Your task to perform on an android device: check the backup settings in the google photos Image 0: 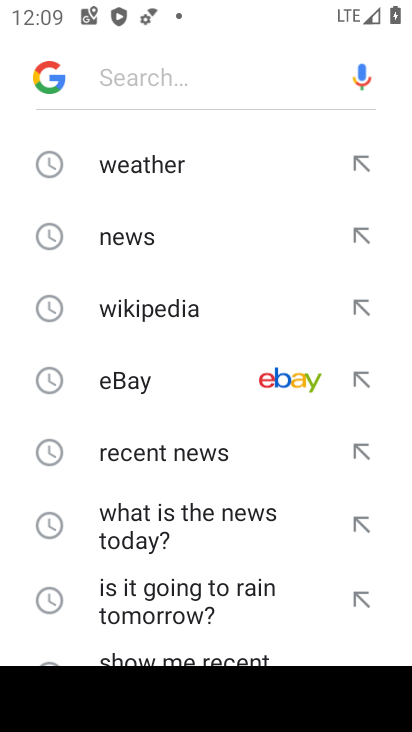
Step 0: press home button
Your task to perform on an android device: check the backup settings in the google photos Image 1: 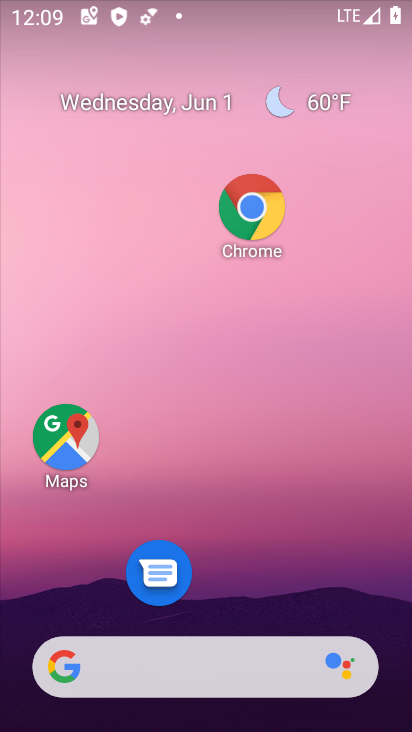
Step 1: drag from (227, 599) to (228, 131)
Your task to perform on an android device: check the backup settings in the google photos Image 2: 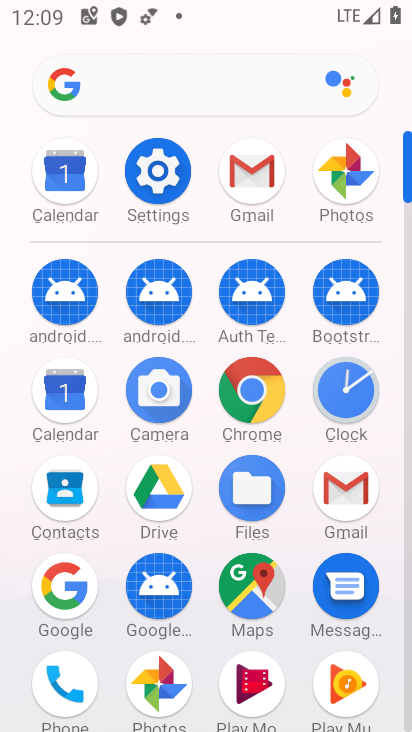
Step 2: click (343, 184)
Your task to perform on an android device: check the backup settings in the google photos Image 3: 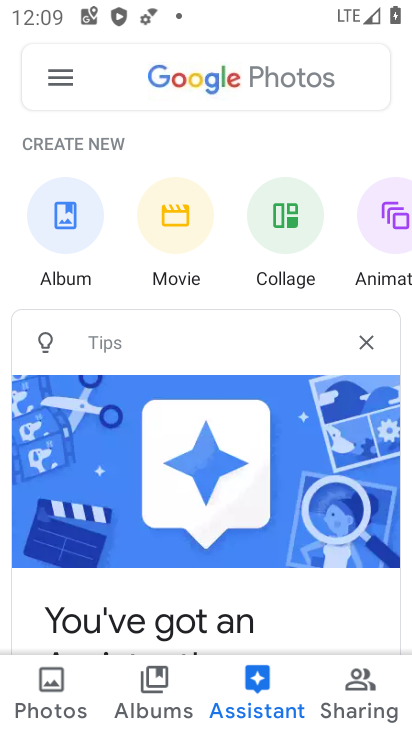
Step 3: click (54, 83)
Your task to perform on an android device: check the backup settings in the google photos Image 4: 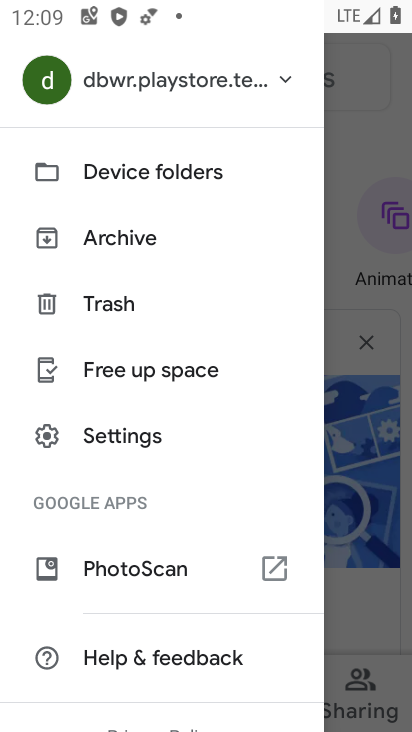
Step 4: click (151, 445)
Your task to perform on an android device: check the backup settings in the google photos Image 5: 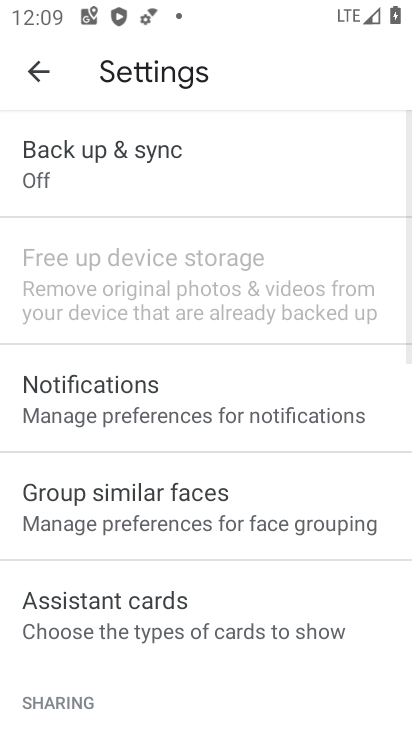
Step 5: click (152, 191)
Your task to perform on an android device: check the backup settings in the google photos Image 6: 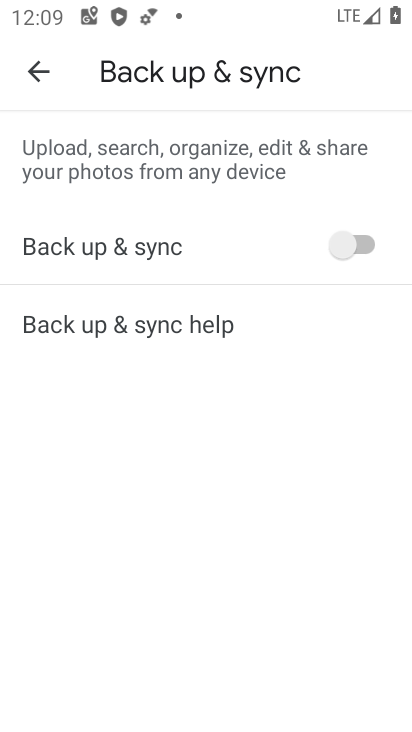
Step 6: task complete